Your task to perform on an android device: move an email to a new category in the gmail app Image 0: 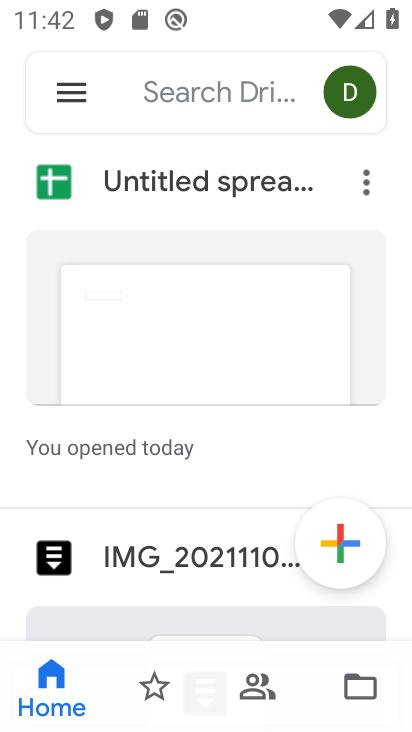
Step 0: task complete